Your task to perform on an android device: change alarm snooze length Image 0: 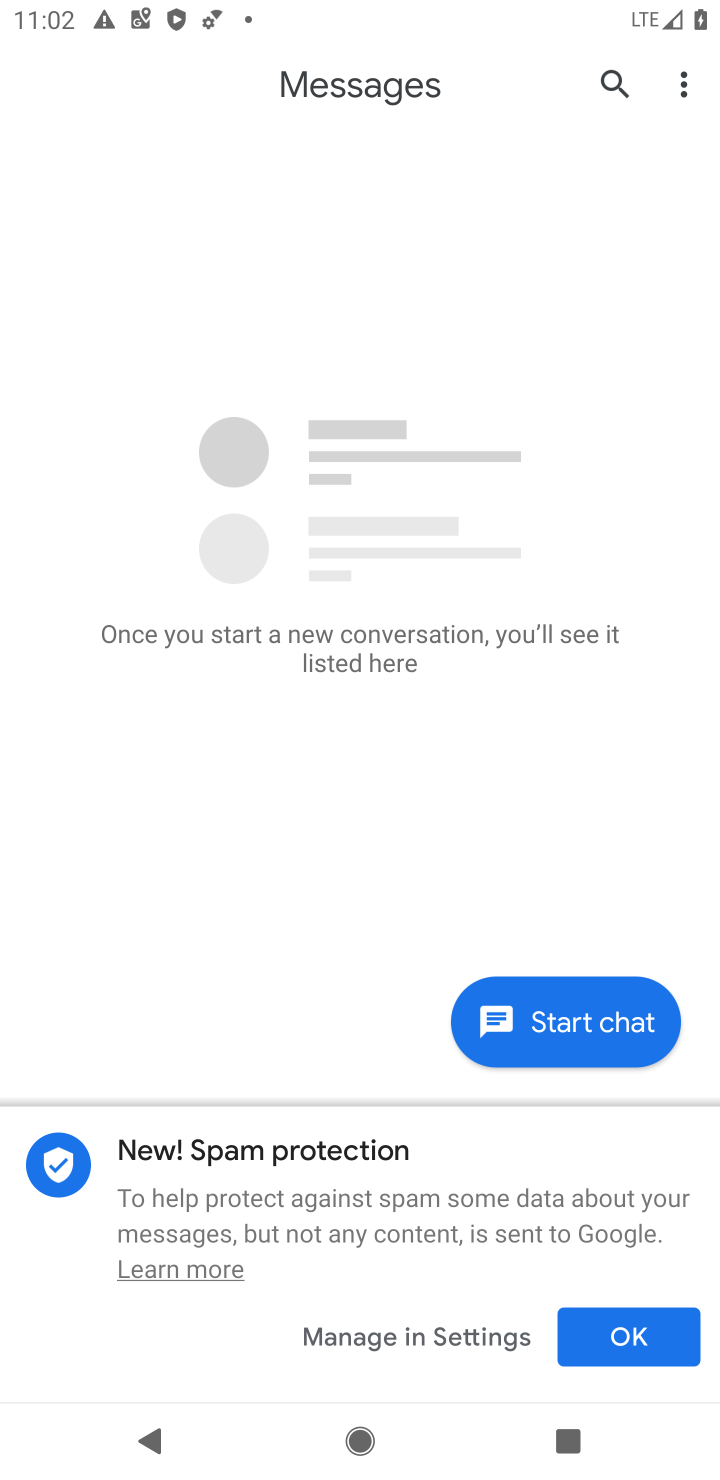
Step 0: press home button
Your task to perform on an android device: change alarm snooze length Image 1: 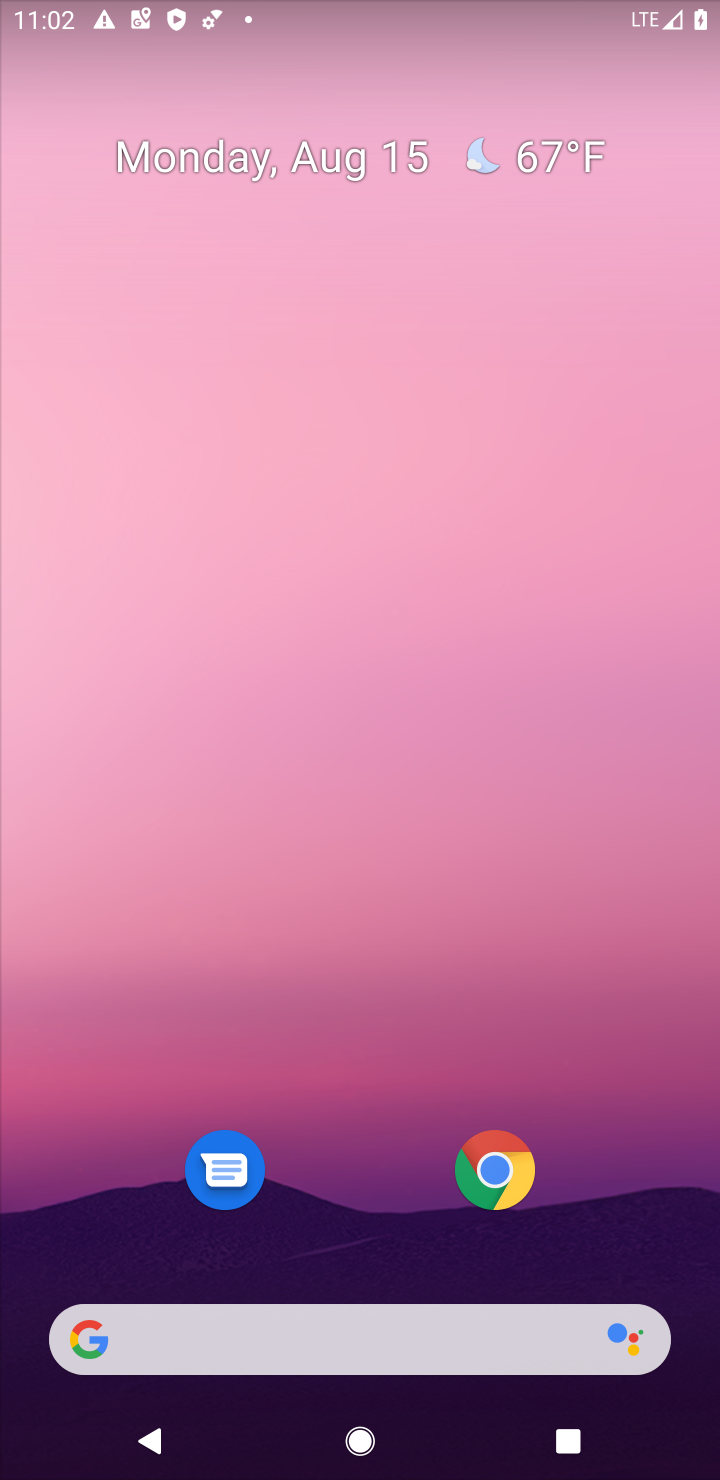
Step 1: drag from (375, 1254) to (415, 0)
Your task to perform on an android device: change alarm snooze length Image 2: 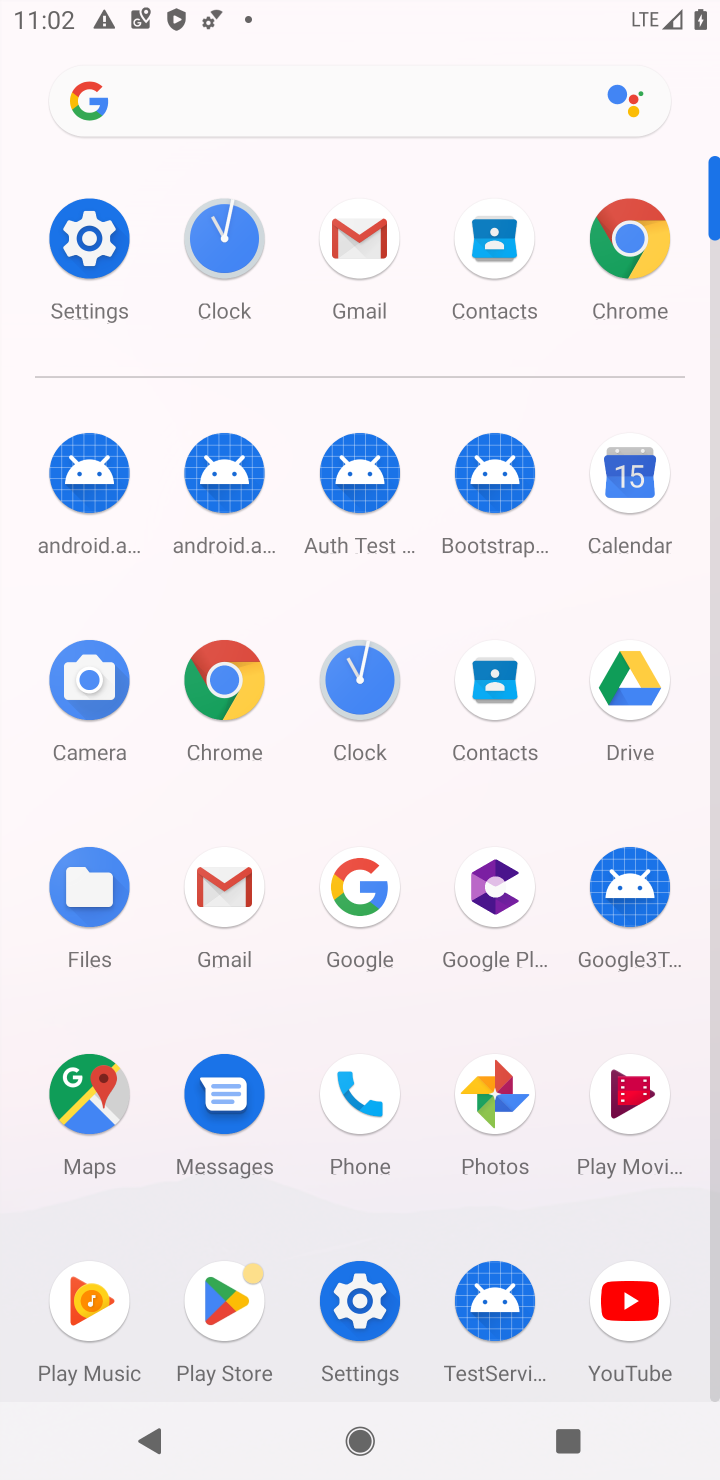
Step 2: click (355, 669)
Your task to perform on an android device: change alarm snooze length Image 3: 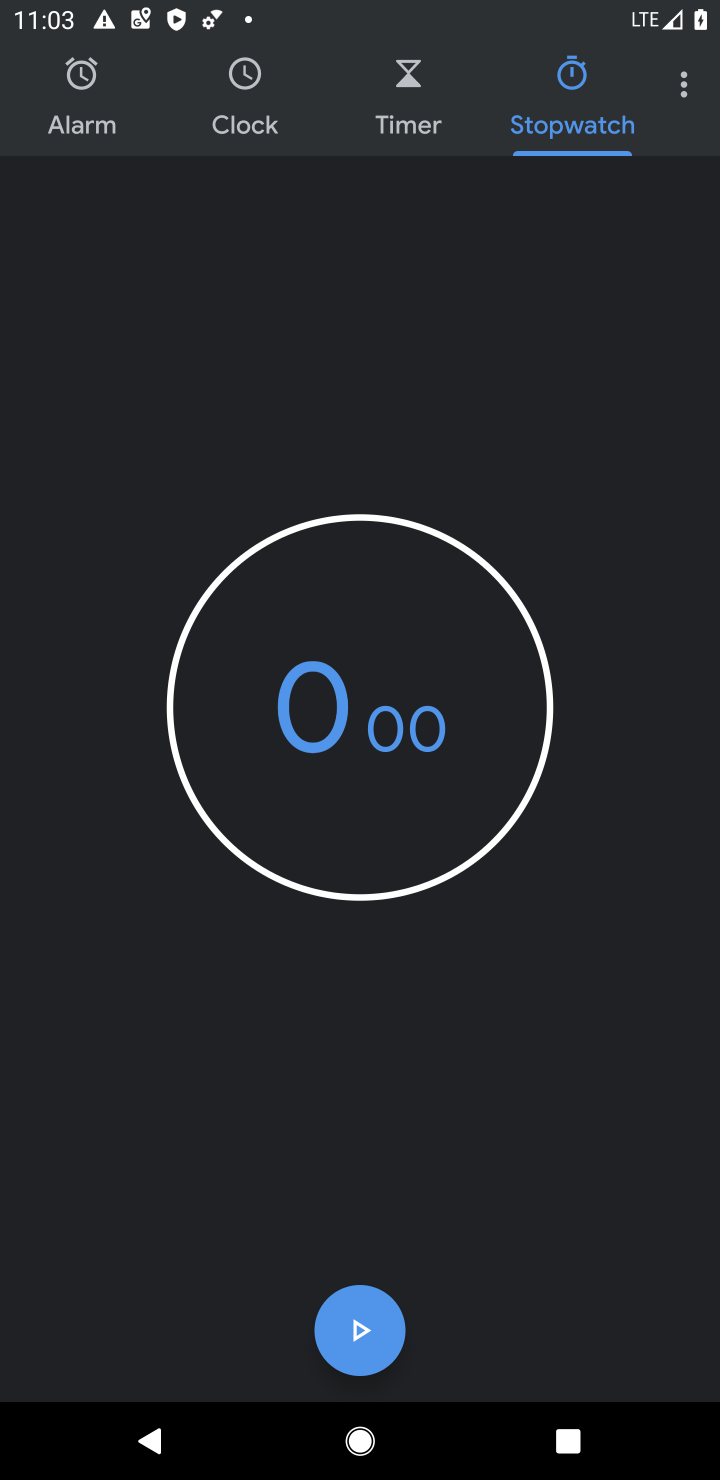
Step 3: click (685, 80)
Your task to perform on an android device: change alarm snooze length Image 4: 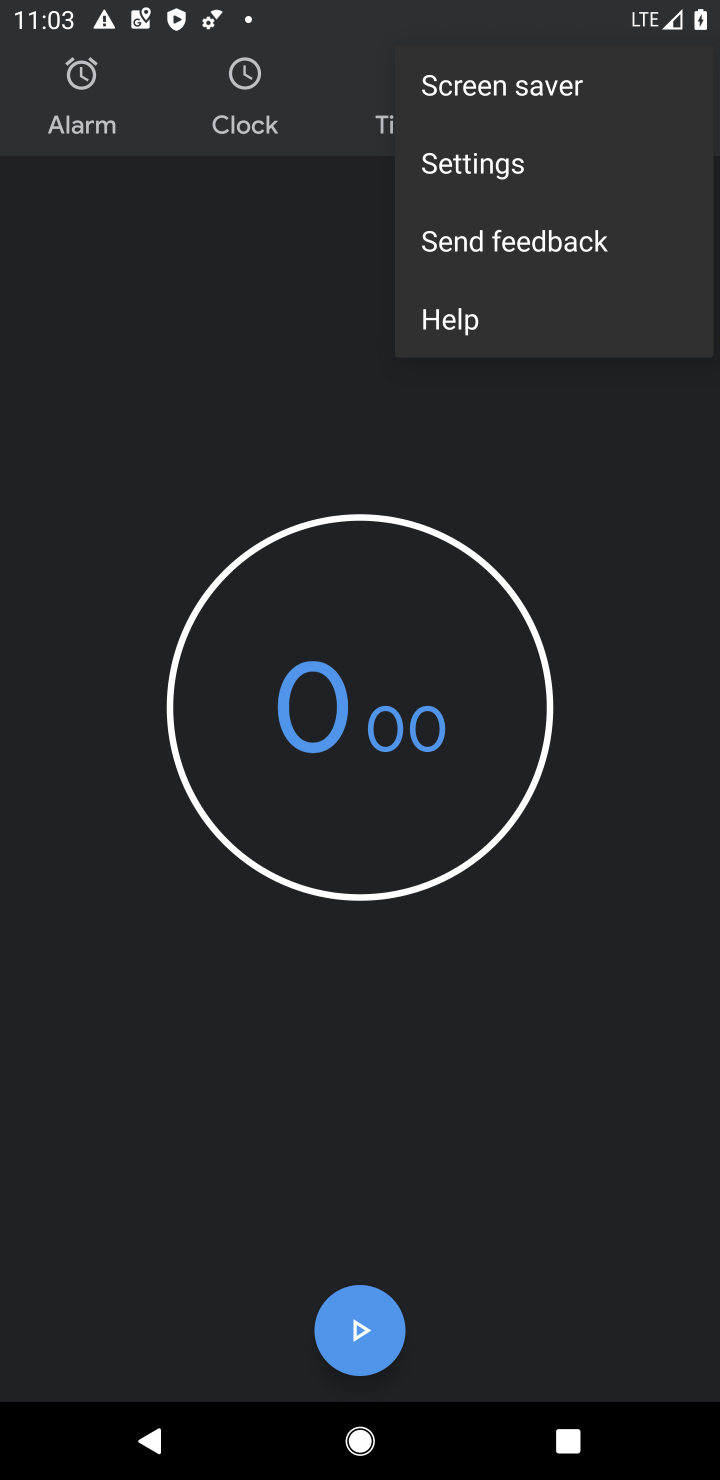
Step 4: click (539, 167)
Your task to perform on an android device: change alarm snooze length Image 5: 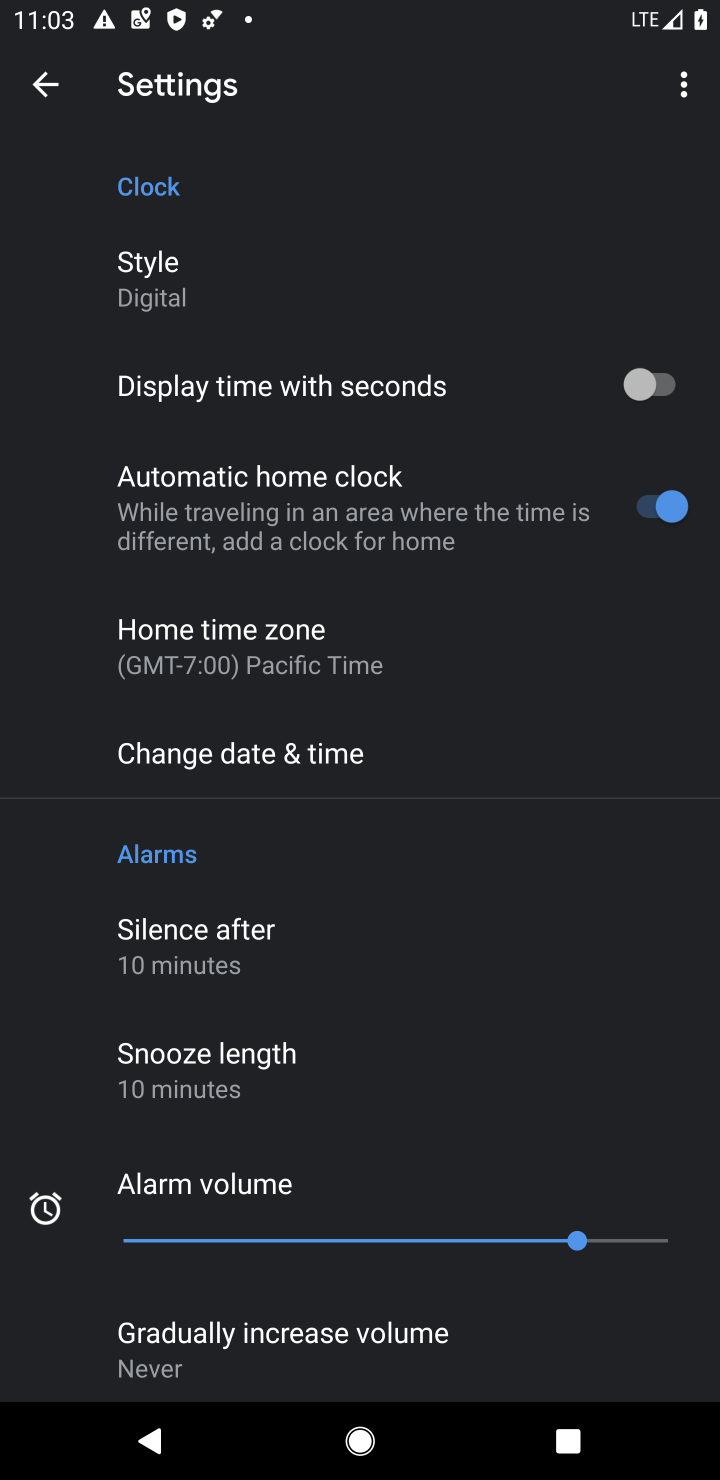
Step 5: click (241, 1078)
Your task to perform on an android device: change alarm snooze length Image 6: 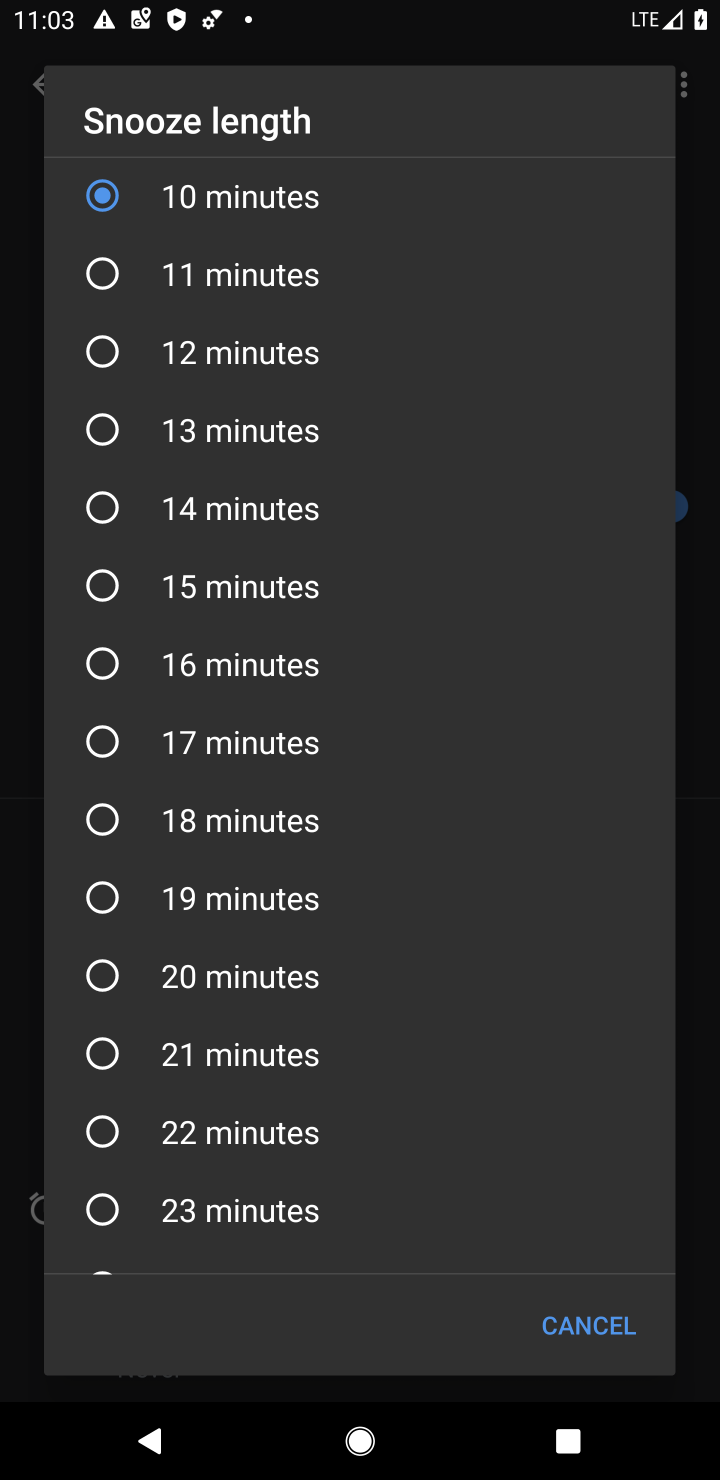
Step 6: drag from (182, 562) to (167, 1177)
Your task to perform on an android device: change alarm snooze length Image 7: 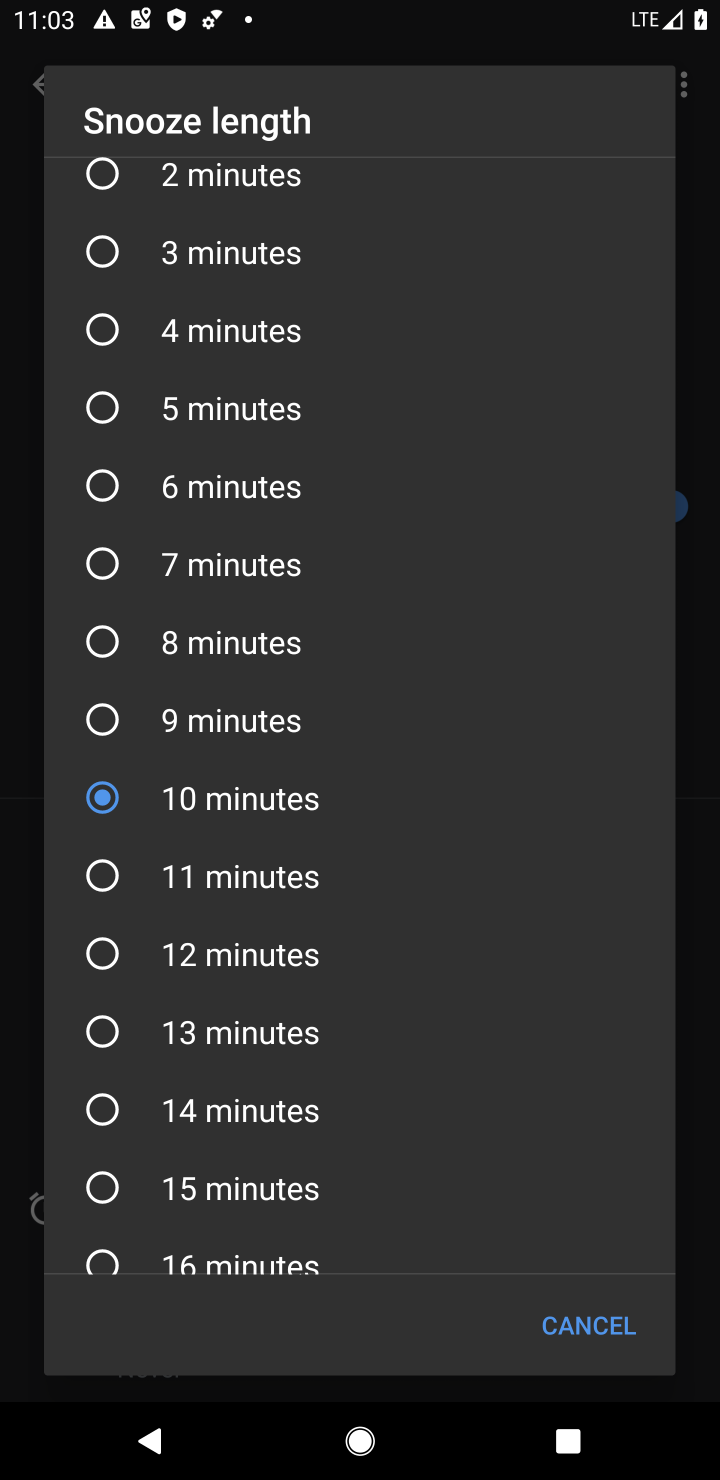
Step 7: click (102, 320)
Your task to perform on an android device: change alarm snooze length Image 8: 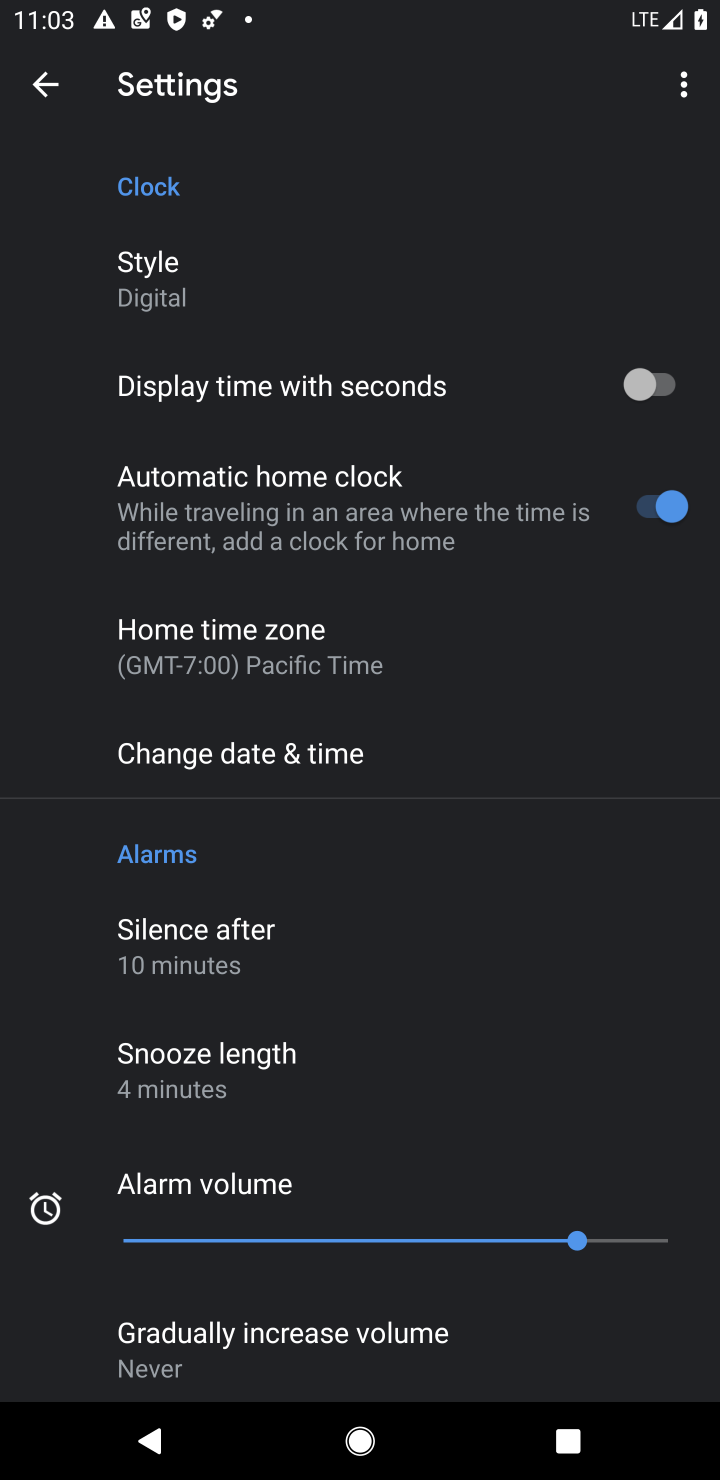
Step 8: task complete